Your task to perform on an android device: visit the assistant section in the google photos Image 0: 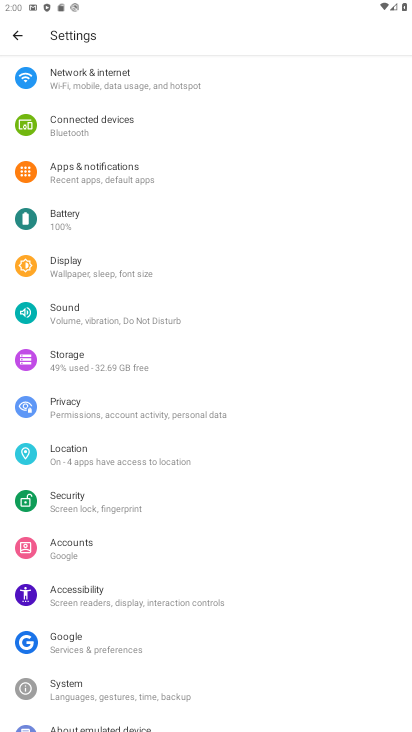
Step 0: press home button
Your task to perform on an android device: visit the assistant section in the google photos Image 1: 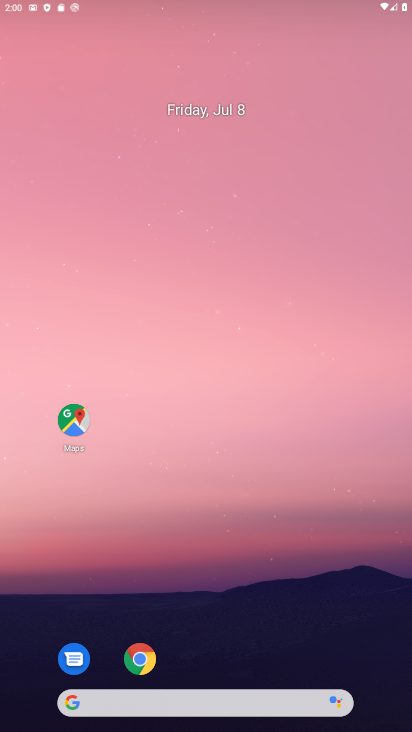
Step 1: drag from (217, 618) to (174, 134)
Your task to perform on an android device: visit the assistant section in the google photos Image 2: 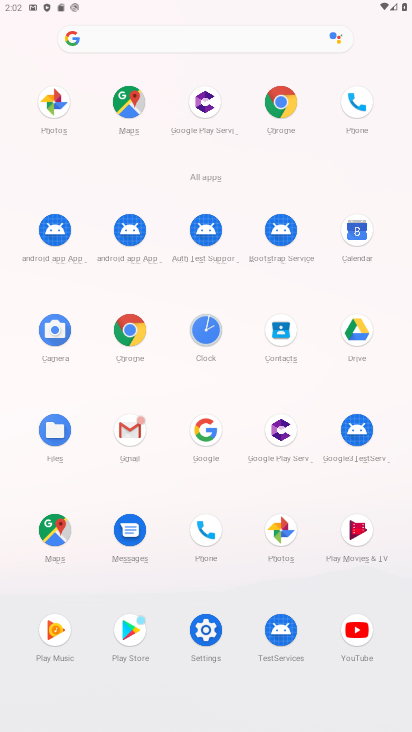
Step 2: click (286, 539)
Your task to perform on an android device: visit the assistant section in the google photos Image 3: 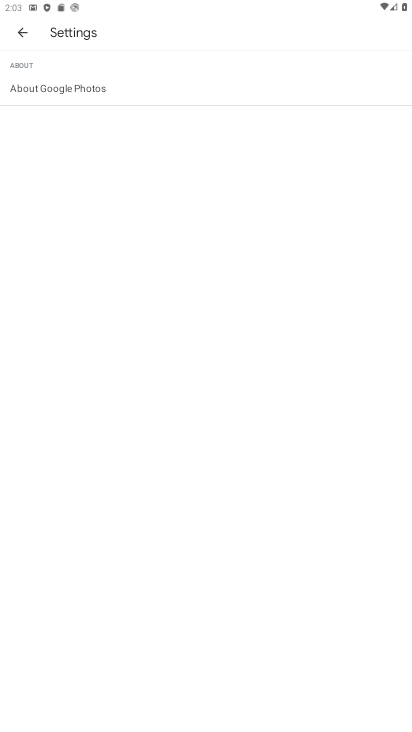
Step 3: click (20, 43)
Your task to perform on an android device: visit the assistant section in the google photos Image 4: 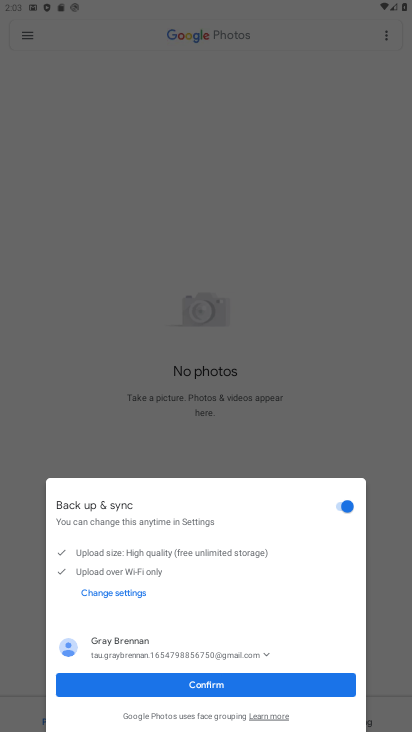
Step 4: click (250, 690)
Your task to perform on an android device: visit the assistant section in the google photos Image 5: 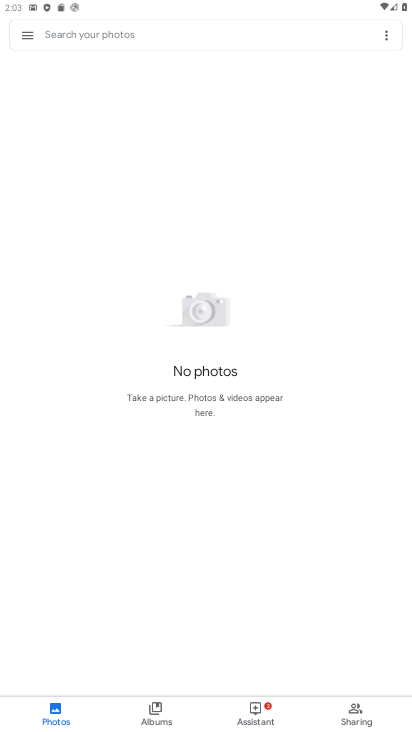
Step 5: click (291, 706)
Your task to perform on an android device: visit the assistant section in the google photos Image 6: 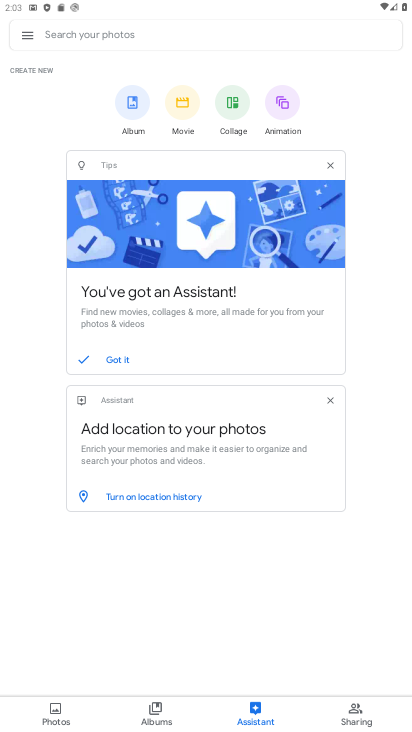
Step 6: task complete